Your task to perform on an android device: toggle data saver in the chrome app Image 0: 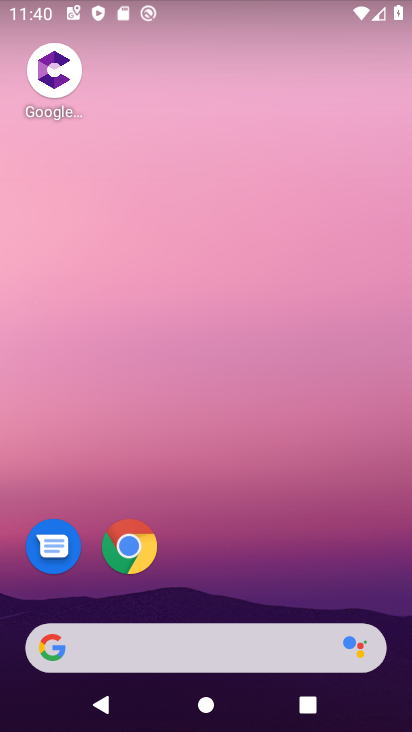
Step 0: drag from (240, 588) to (175, 77)
Your task to perform on an android device: toggle data saver in the chrome app Image 1: 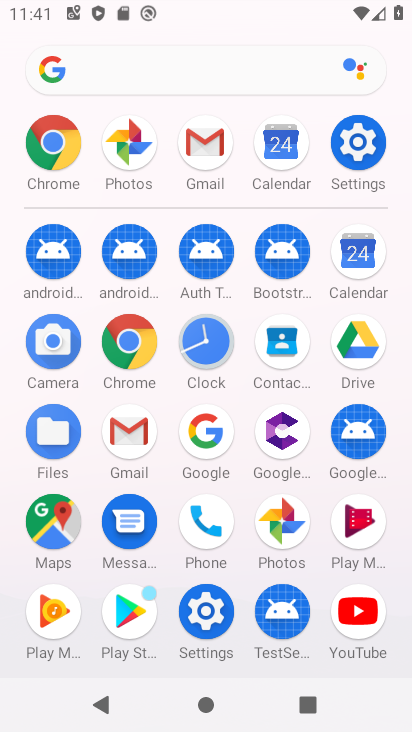
Step 1: click (63, 139)
Your task to perform on an android device: toggle data saver in the chrome app Image 2: 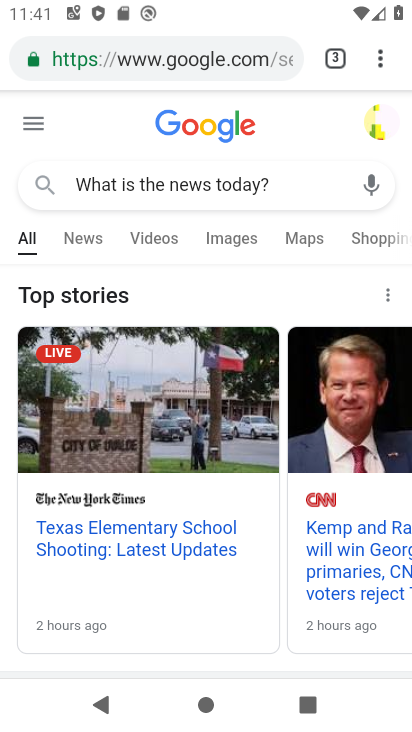
Step 2: click (377, 68)
Your task to perform on an android device: toggle data saver in the chrome app Image 3: 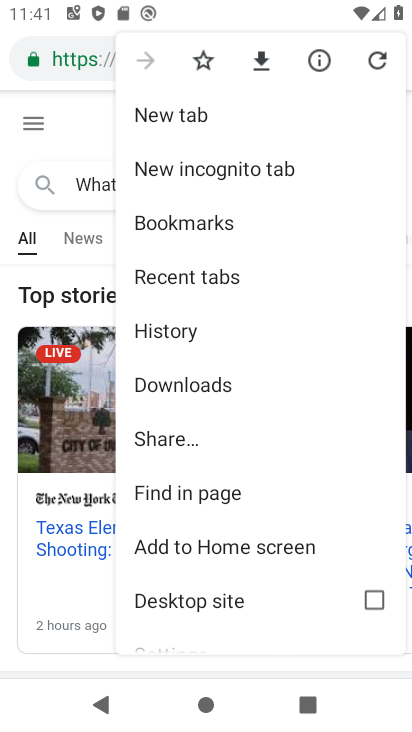
Step 3: drag from (261, 582) to (227, 216)
Your task to perform on an android device: toggle data saver in the chrome app Image 4: 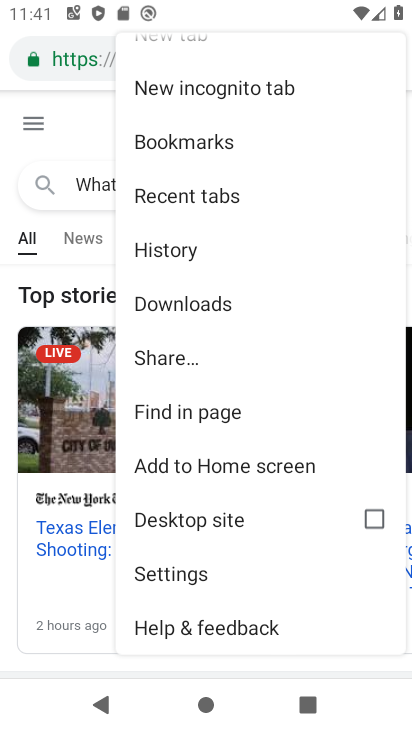
Step 4: click (215, 572)
Your task to perform on an android device: toggle data saver in the chrome app Image 5: 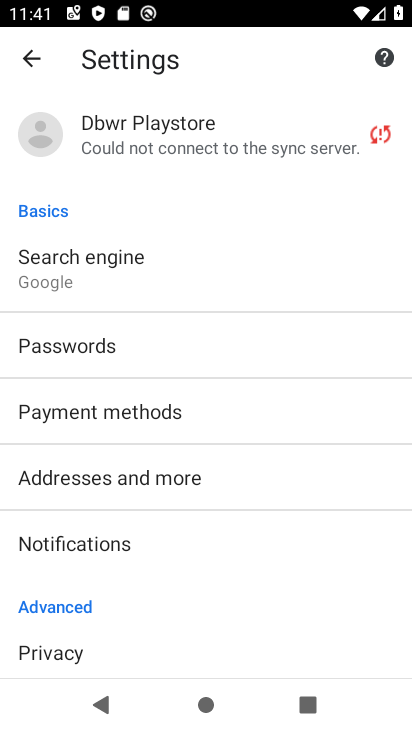
Step 5: drag from (175, 655) to (123, 204)
Your task to perform on an android device: toggle data saver in the chrome app Image 6: 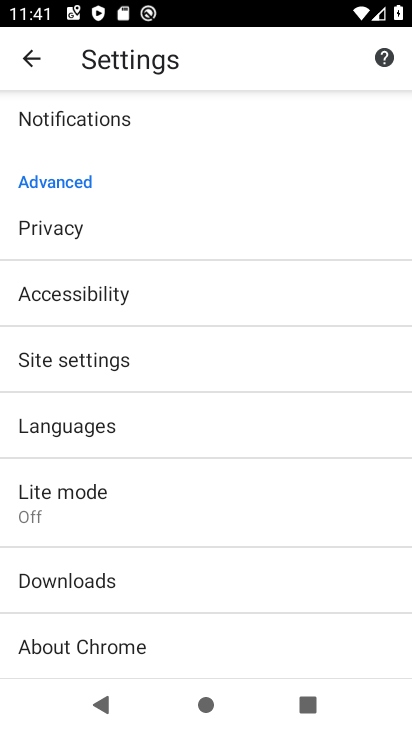
Step 6: click (135, 513)
Your task to perform on an android device: toggle data saver in the chrome app Image 7: 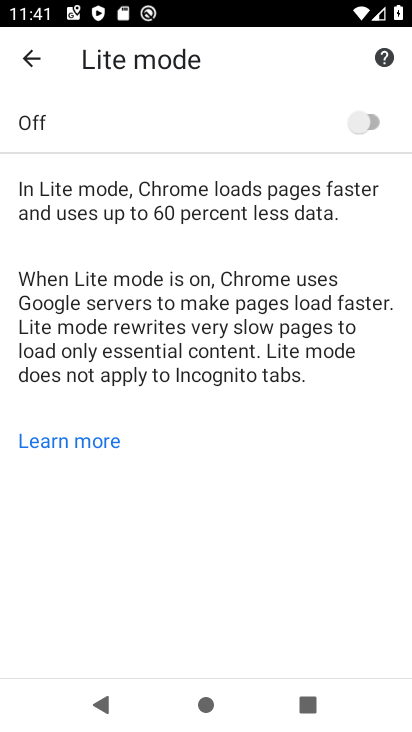
Step 7: click (372, 127)
Your task to perform on an android device: toggle data saver in the chrome app Image 8: 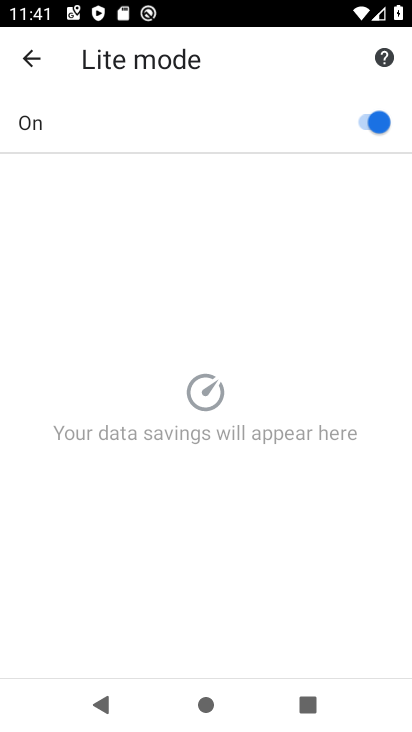
Step 8: task complete